Your task to perform on an android device: Do I have any events this weekend? Image 0: 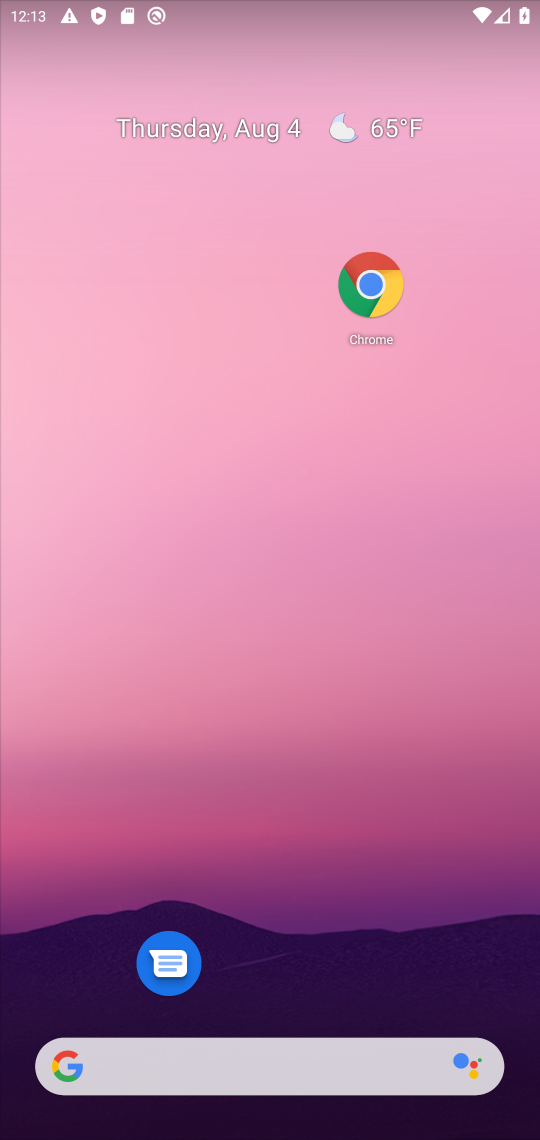
Step 0: click (351, 299)
Your task to perform on an android device: Do I have any events this weekend? Image 1: 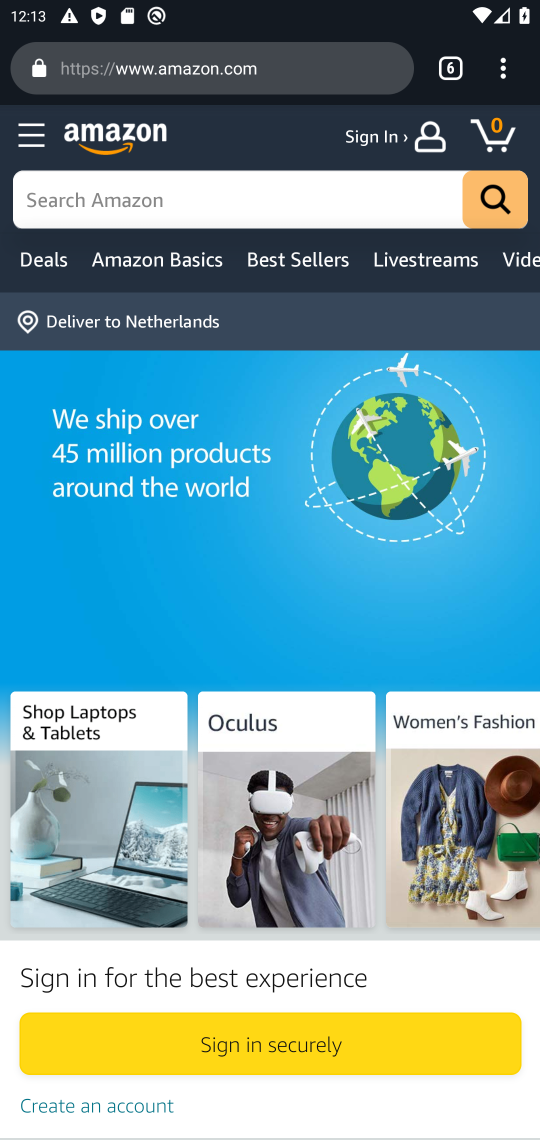
Step 1: click (495, 60)
Your task to perform on an android device: Do I have any events this weekend? Image 2: 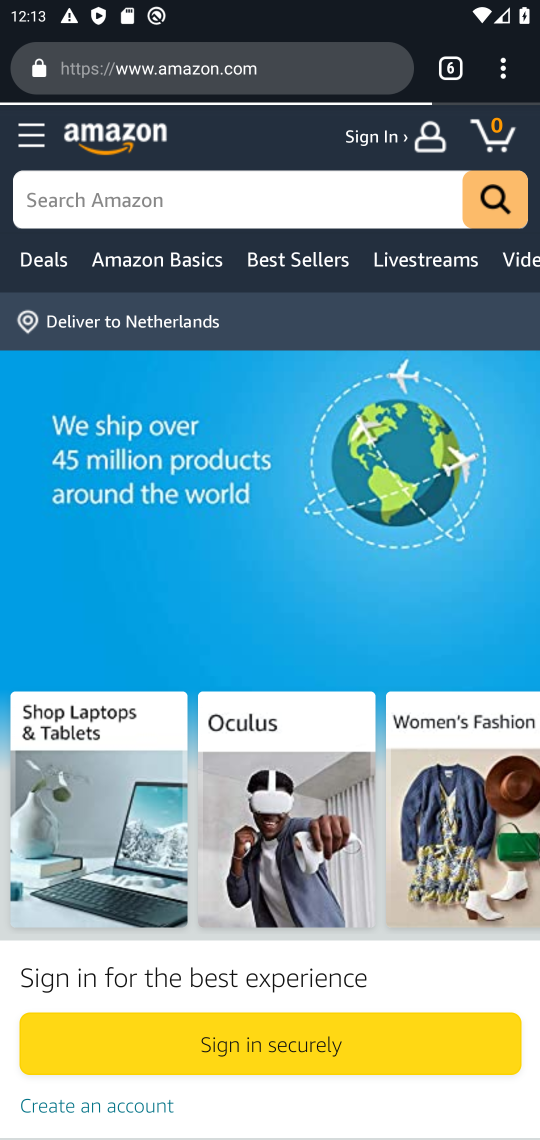
Step 2: click (524, 75)
Your task to perform on an android device: Do I have any events this weekend? Image 3: 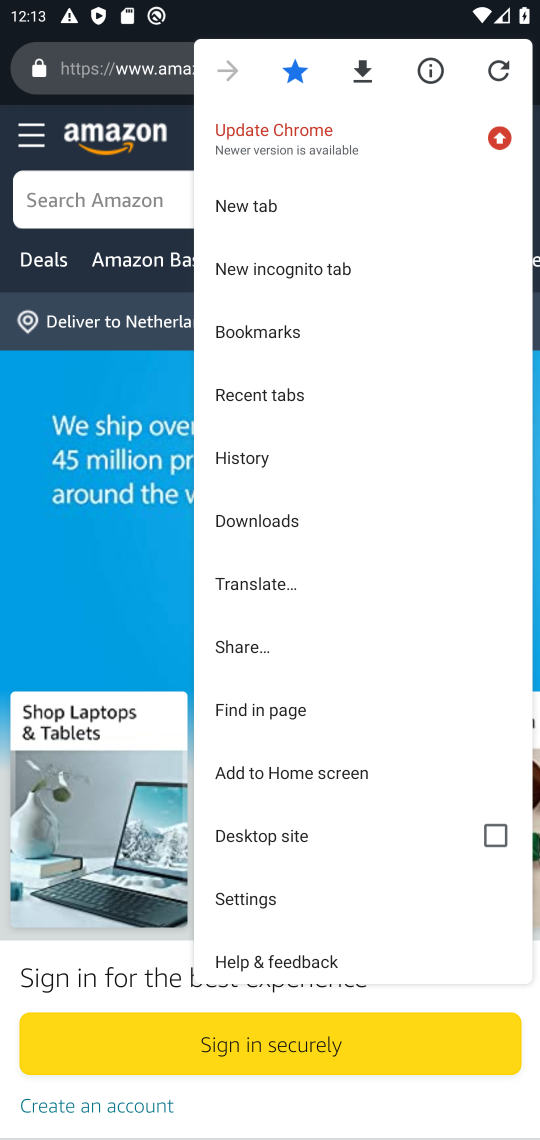
Step 3: click (299, 192)
Your task to perform on an android device: Do I have any events this weekend? Image 4: 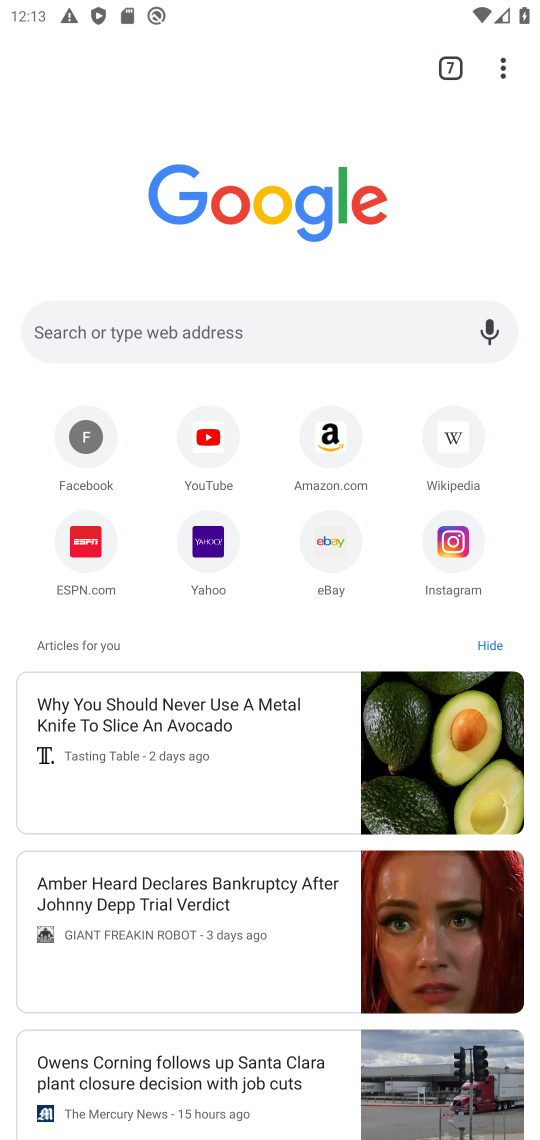
Step 4: click (196, 324)
Your task to perform on an android device: Do I have any events this weekend? Image 5: 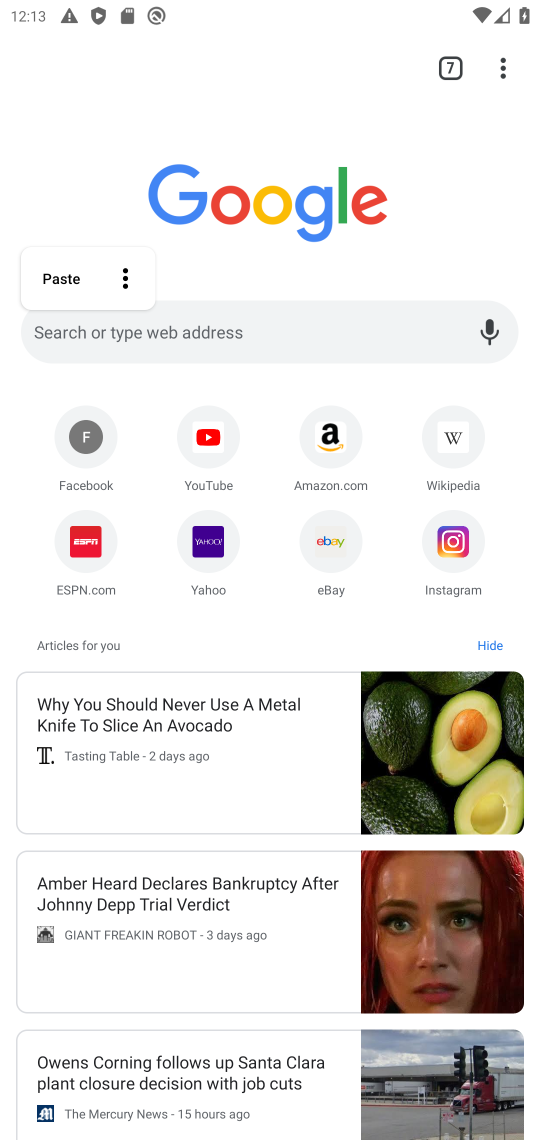
Step 5: type "Do I have any events this weekend? "
Your task to perform on an android device: Do I have any events this weekend? Image 6: 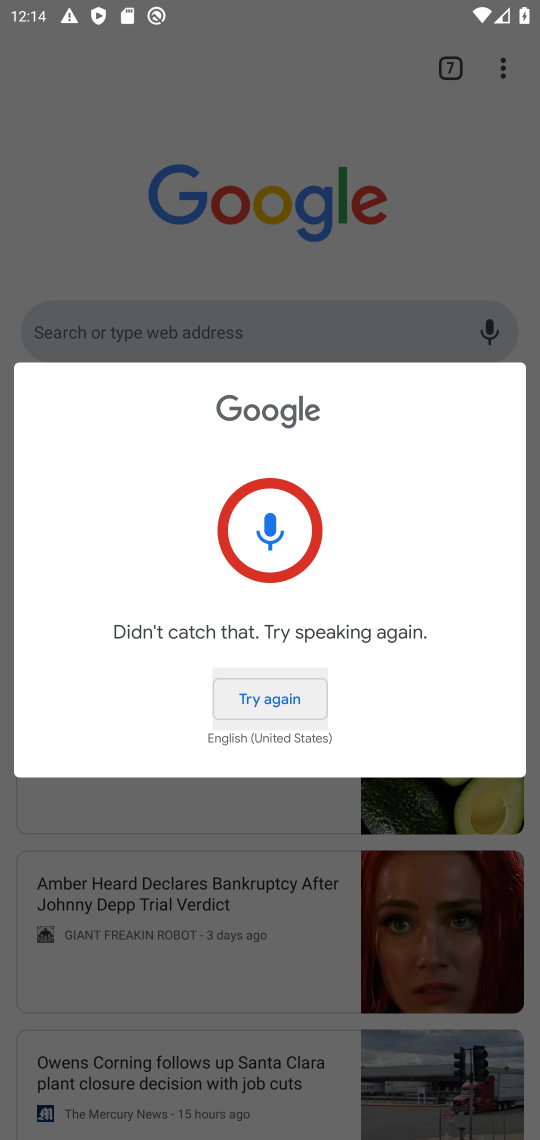
Step 6: click (437, 301)
Your task to perform on an android device: Do I have any events this weekend? Image 7: 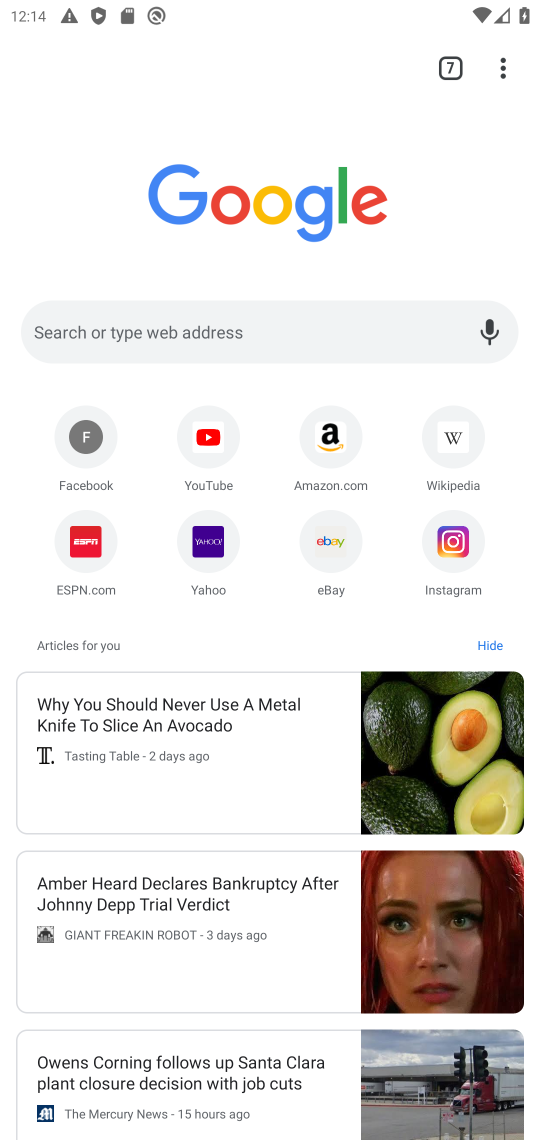
Step 7: click (378, 339)
Your task to perform on an android device: Do I have any events this weekend? Image 8: 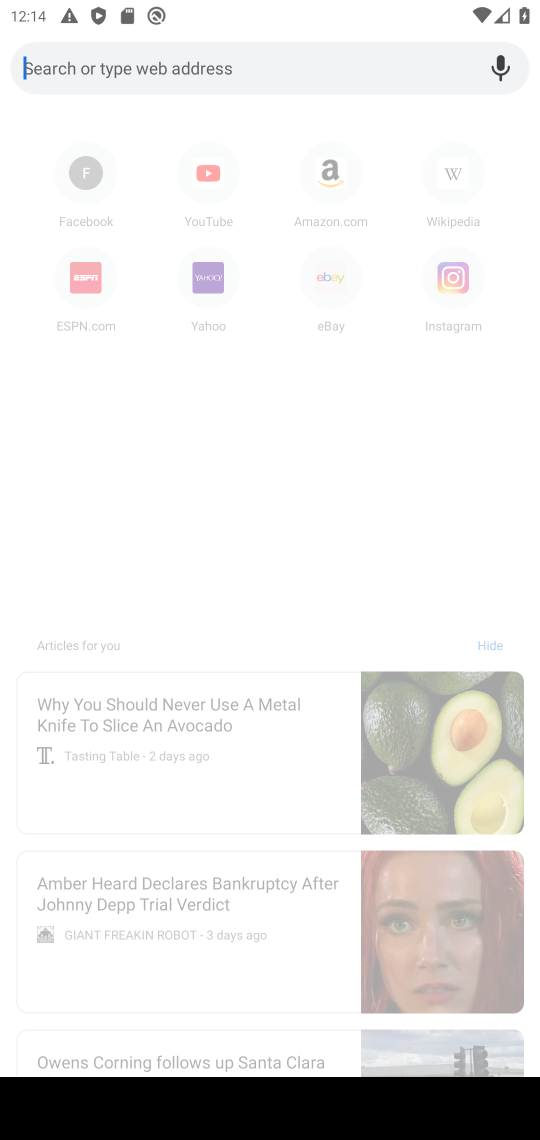
Step 8: type "Do I have any events this weekend? "
Your task to perform on an android device: Do I have any events this weekend? Image 9: 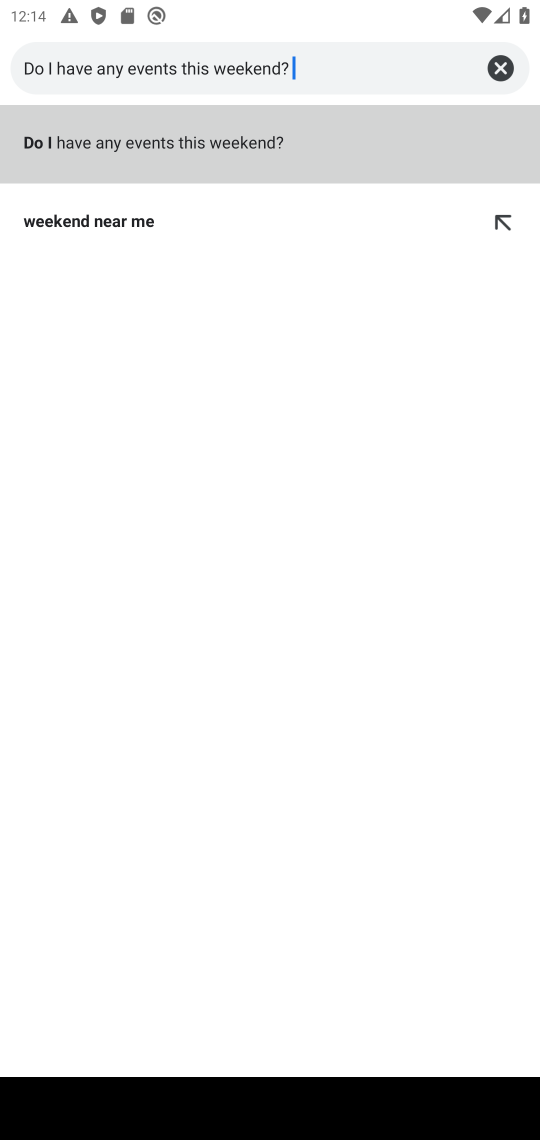
Step 9: click (380, 129)
Your task to perform on an android device: Do I have any events this weekend? Image 10: 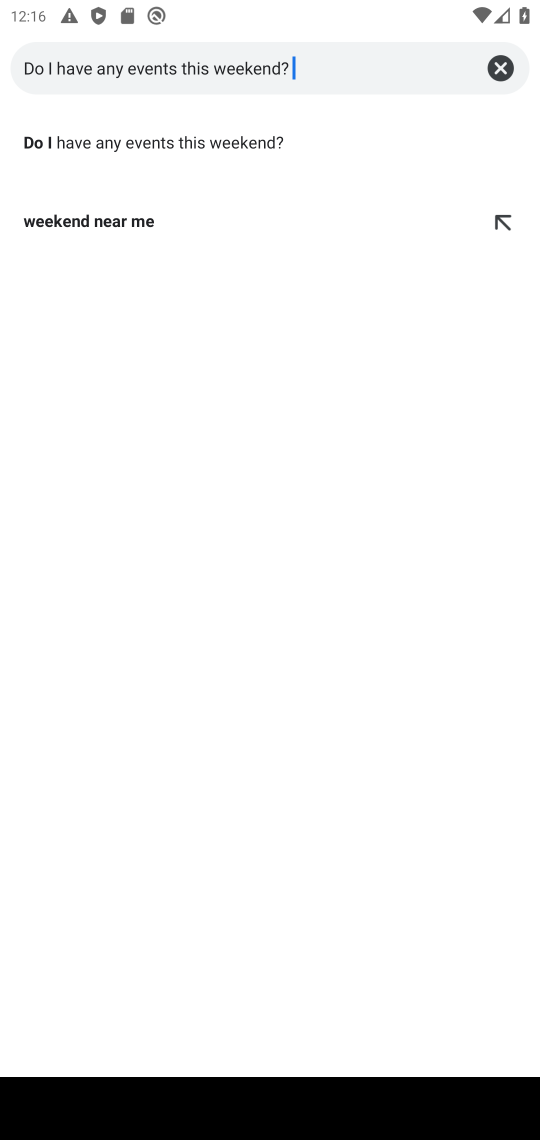
Step 10: click (199, 138)
Your task to perform on an android device: Do I have any events this weekend? Image 11: 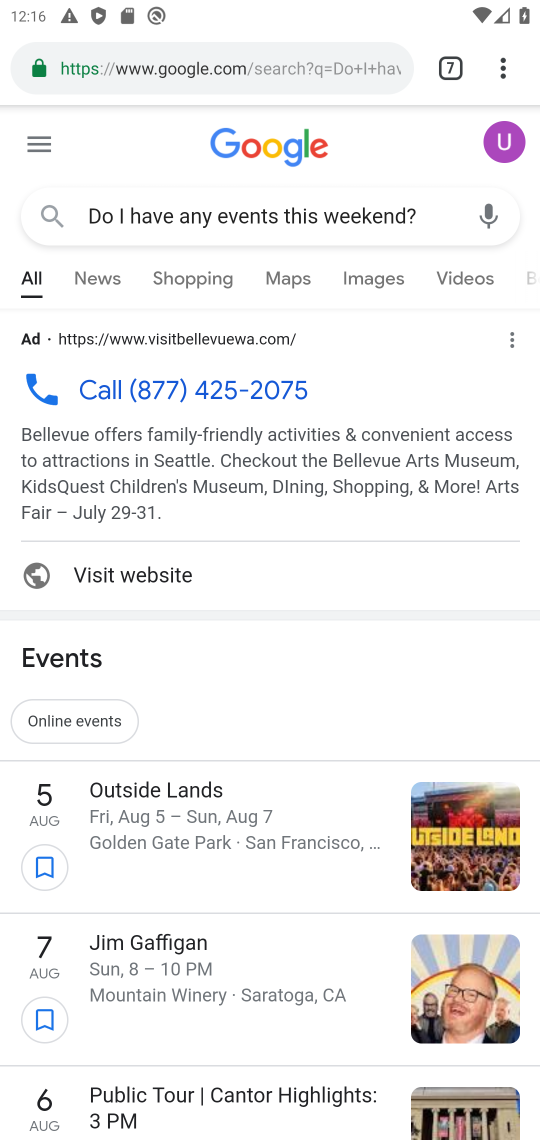
Step 11: task complete